Your task to perform on an android device: Open Chrome and go to settings Image 0: 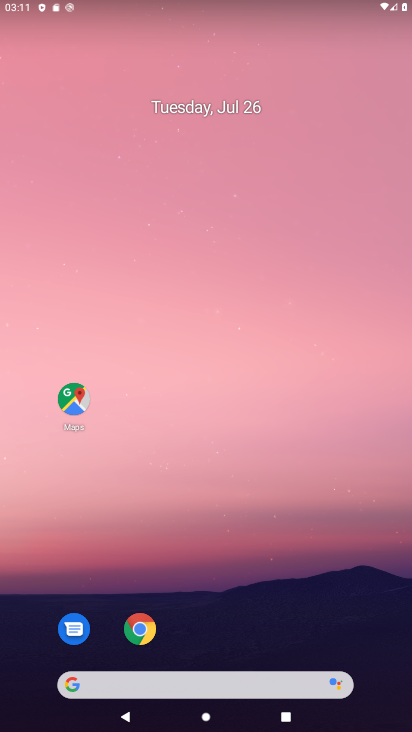
Step 0: press home button
Your task to perform on an android device: Open Chrome and go to settings Image 1: 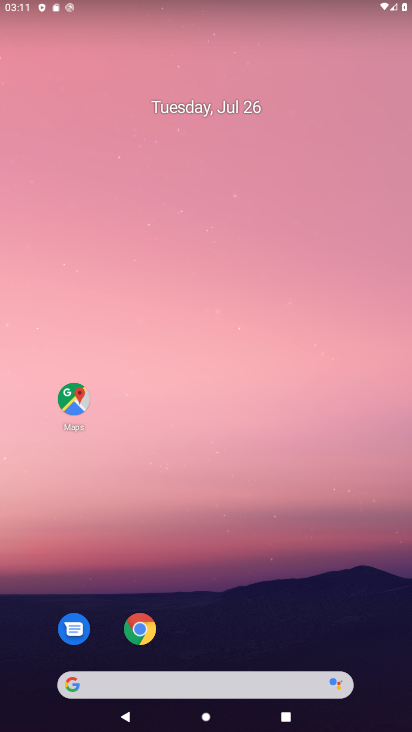
Step 1: drag from (261, 628) to (247, 15)
Your task to perform on an android device: Open Chrome and go to settings Image 2: 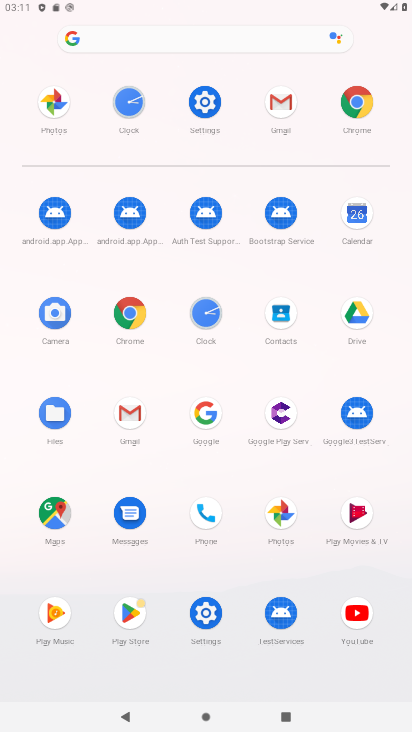
Step 2: click (131, 314)
Your task to perform on an android device: Open Chrome and go to settings Image 3: 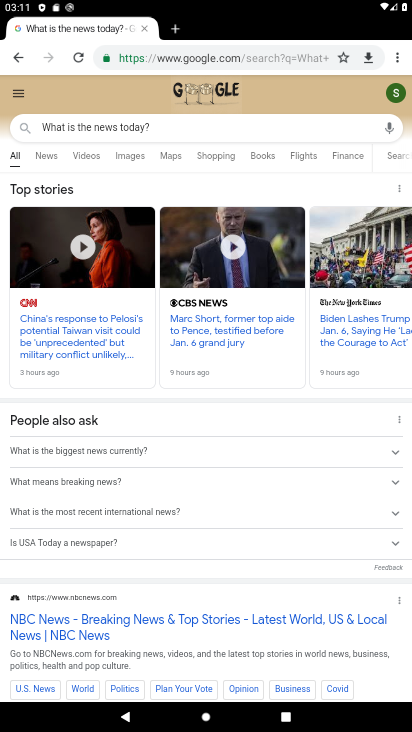
Step 3: task complete